Your task to perform on an android device: allow notifications from all sites in the chrome app Image 0: 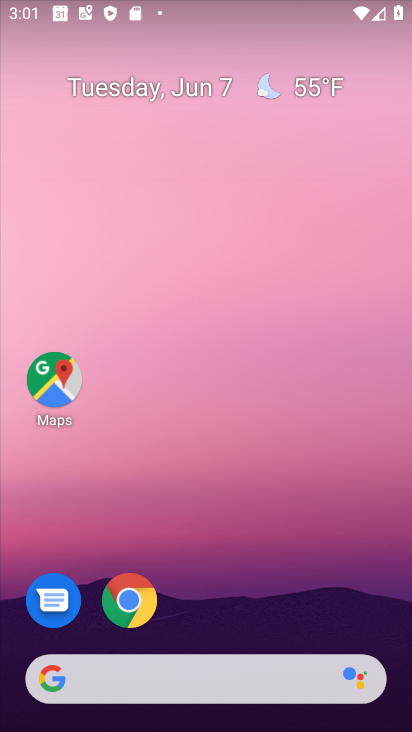
Step 0: drag from (222, 608) to (156, 145)
Your task to perform on an android device: allow notifications from all sites in the chrome app Image 1: 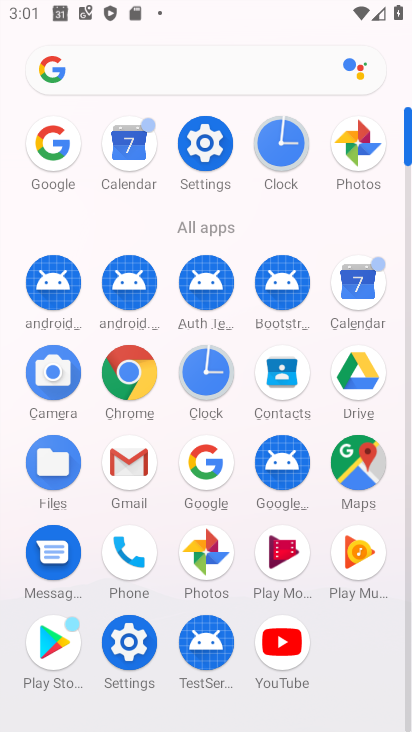
Step 1: click (129, 383)
Your task to perform on an android device: allow notifications from all sites in the chrome app Image 2: 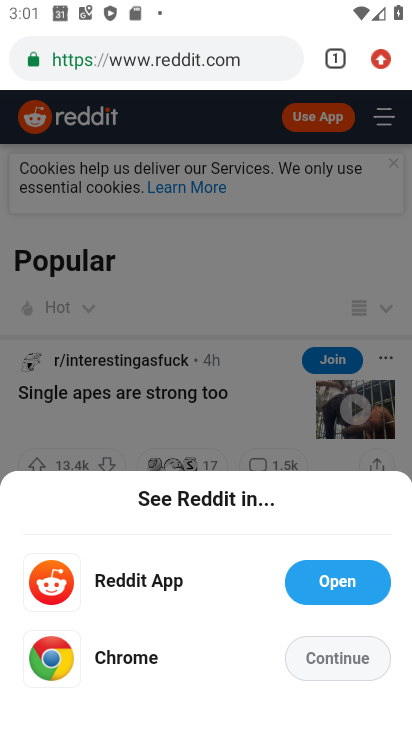
Step 2: click (386, 61)
Your task to perform on an android device: allow notifications from all sites in the chrome app Image 3: 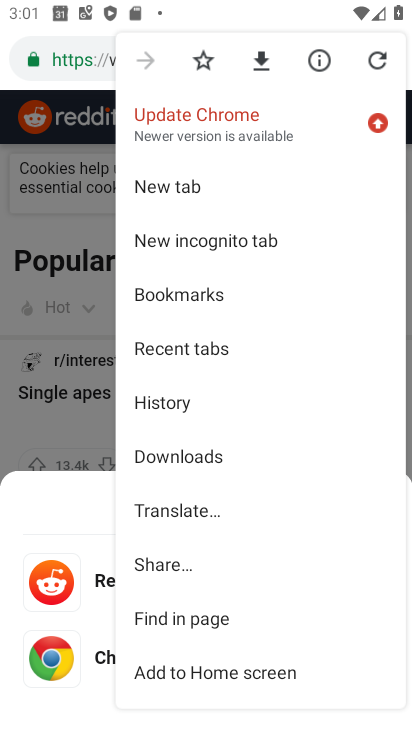
Step 3: drag from (207, 616) to (134, 247)
Your task to perform on an android device: allow notifications from all sites in the chrome app Image 4: 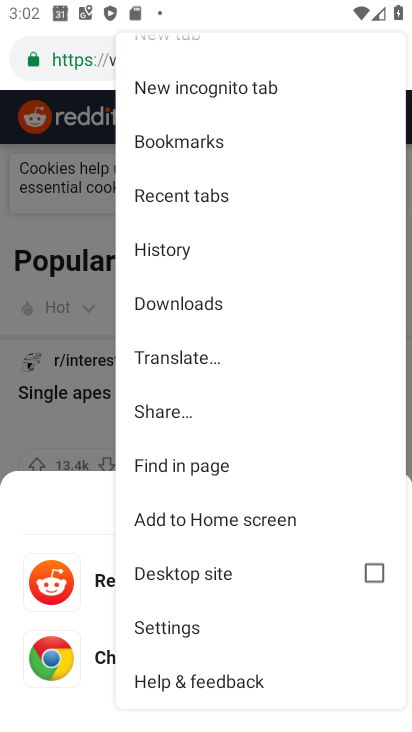
Step 4: click (191, 624)
Your task to perform on an android device: allow notifications from all sites in the chrome app Image 5: 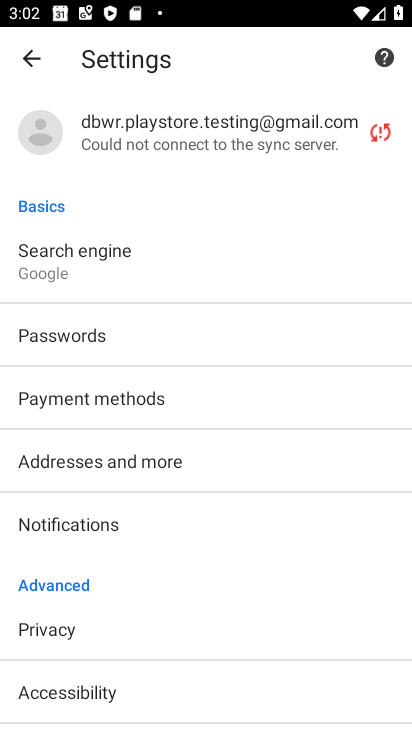
Step 5: drag from (83, 641) to (29, 259)
Your task to perform on an android device: allow notifications from all sites in the chrome app Image 6: 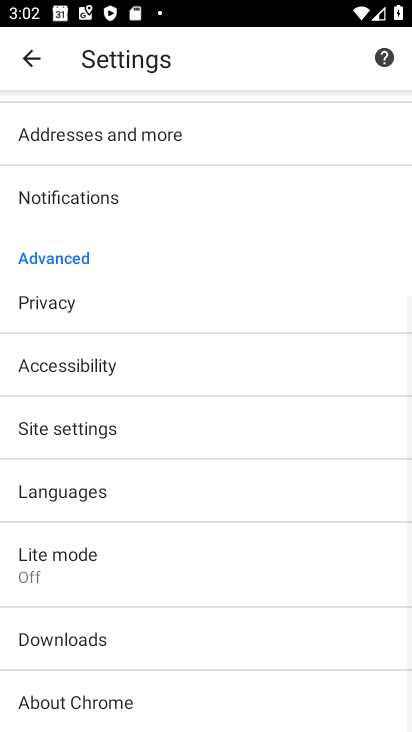
Step 6: click (80, 437)
Your task to perform on an android device: allow notifications from all sites in the chrome app Image 7: 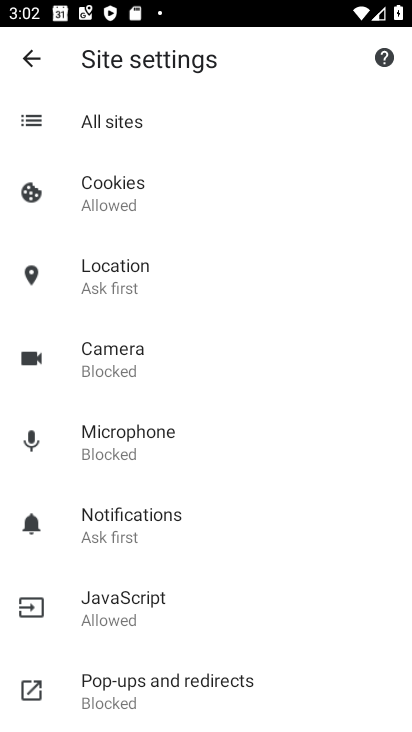
Step 7: click (112, 129)
Your task to perform on an android device: allow notifications from all sites in the chrome app Image 8: 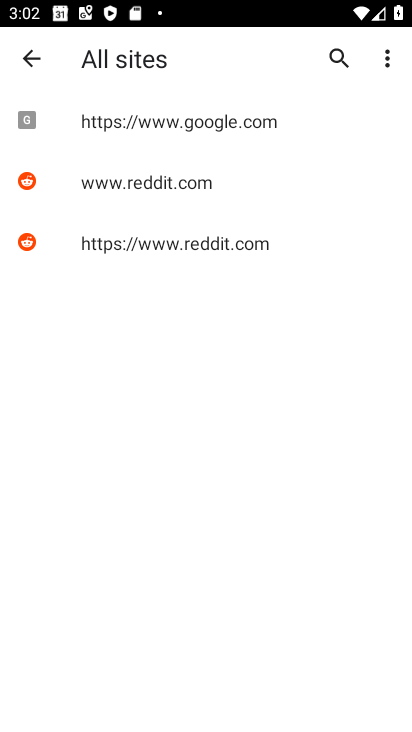
Step 8: click (182, 129)
Your task to perform on an android device: allow notifications from all sites in the chrome app Image 9: 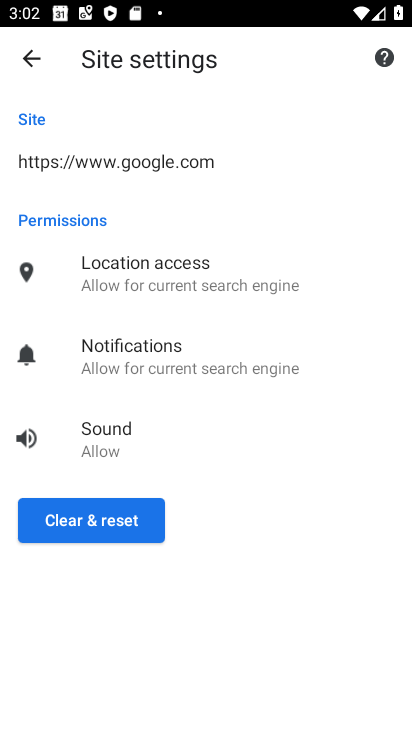
Step 9: drag from (103, 288) to (149, 340)
Your task to perform on an android device: allow notifications from all sites in the chrome app Image 10: 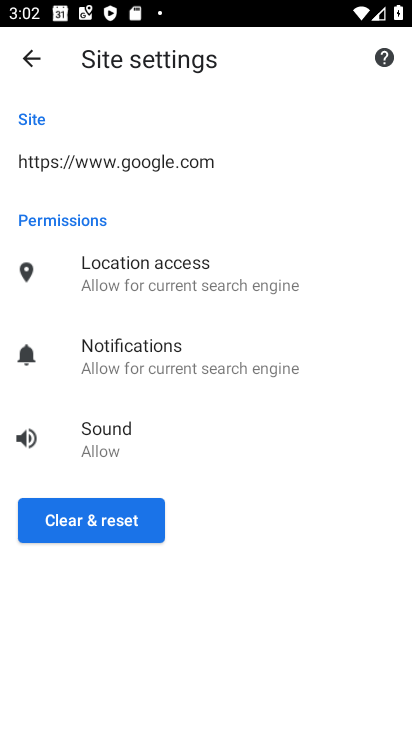
Step 10: drag from (233, 214) to (254, 162)
Your task to perform on an android device: allow notifications from all sites in the chrome app Image 11: 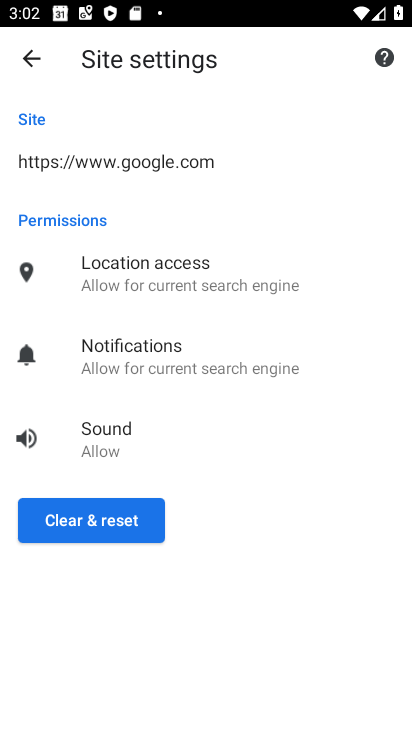
Step 11: click (137, 367)
Your task to perform on an android device: allow notifications from all sites in the chrome app Image 12: 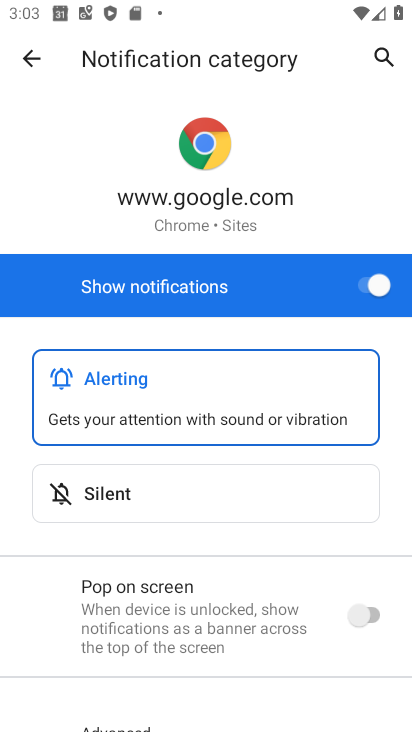
Step 12: task complete